Your task to perform on an android device: toggle notifications settings in the gmail app Image 0: 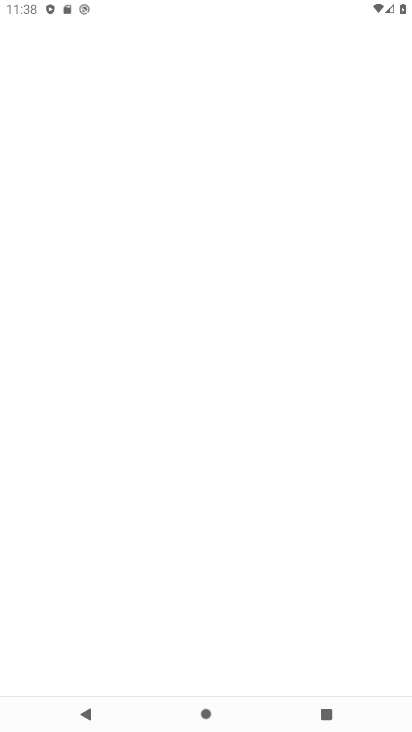
Step 0: drag from (290, 575) to (254, 206)
Your task to perform on an android device: toggle notifications settings in the gmail app Image 1: 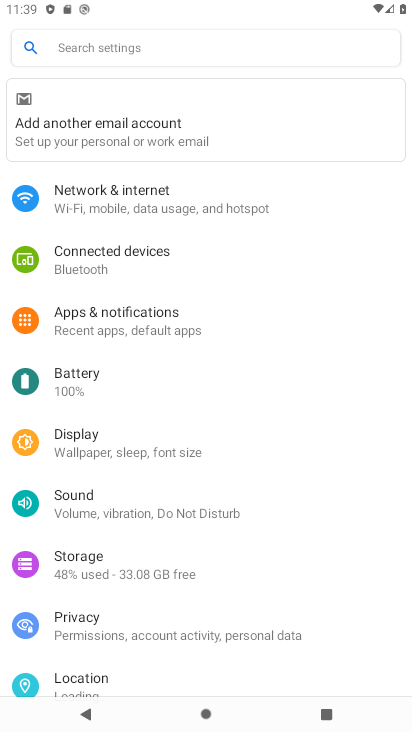
Step 1: press home button
Your task to perform on an android device: toggle notifications settings in the gmail app Image 2: 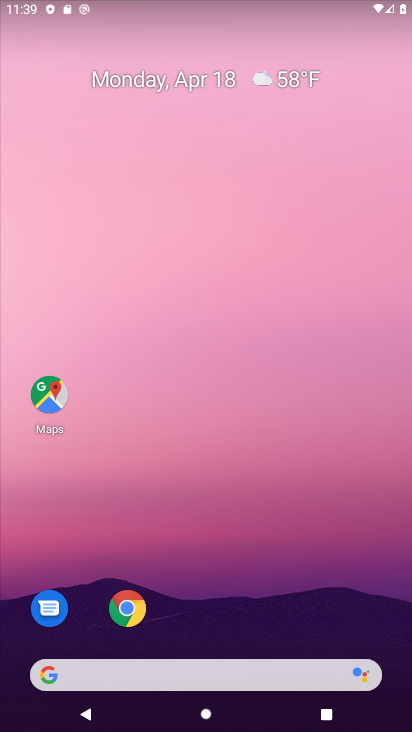
Step 2: drag from (249, 595) to (202, 137)
Your task to perform on an android device: toggle notifications settings in the gmail app Image 3: 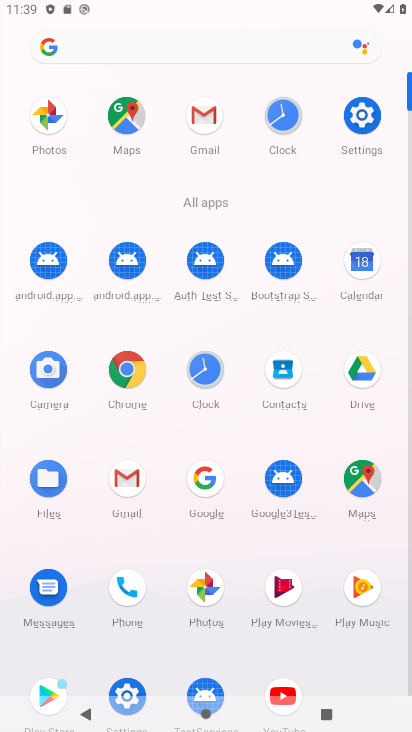
Step 3: click (200, 110)
Your task to perform on an android device: toggle notifications settings in the gmail app Image 4: 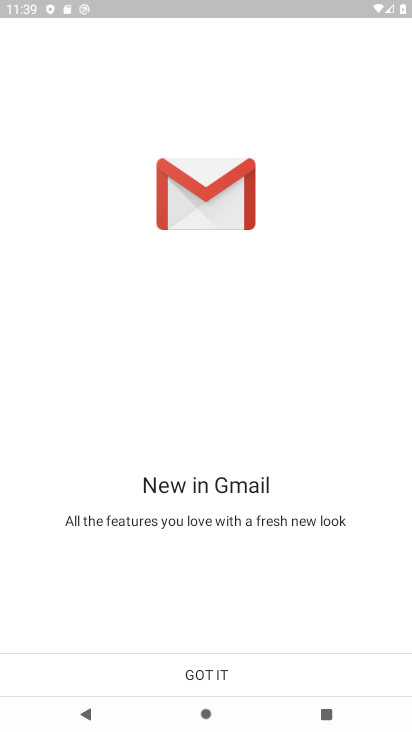
Step 4: click (222, 666)
Your task to perform on an android device: toggle notifications settings in the gmail app Image 5: 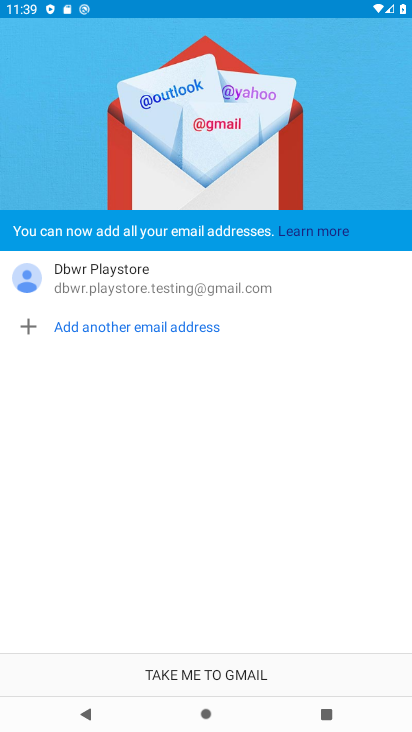
Step 5: click (222, 665)
Your task to perform on an android device: toggle notifications settings in the gmail app Image 6: 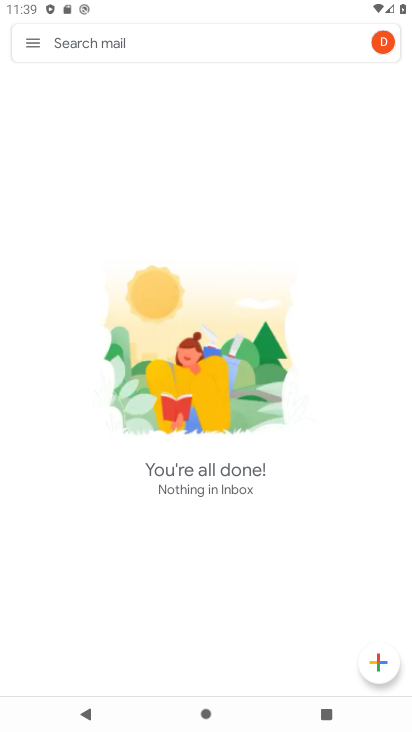
Step 6: click (28, 43)
Your task to perform on an android device: toggle notifications settings in the gmail app Image 7: 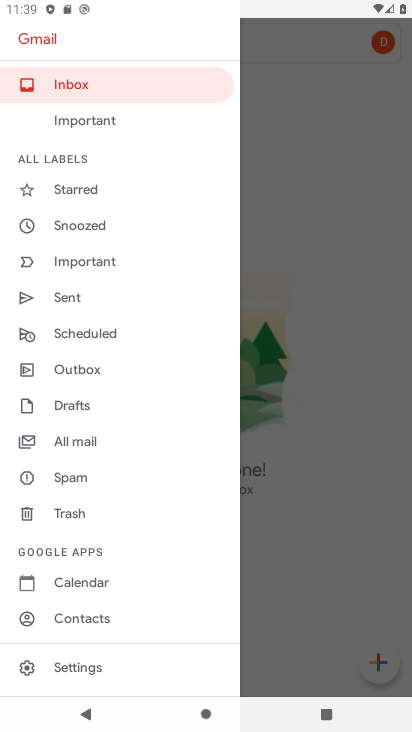
Step 7: drag from (115, 673) to (146, 365)
Your task to perform on an android device: toggle notifications settings in the gmail app Image 8: 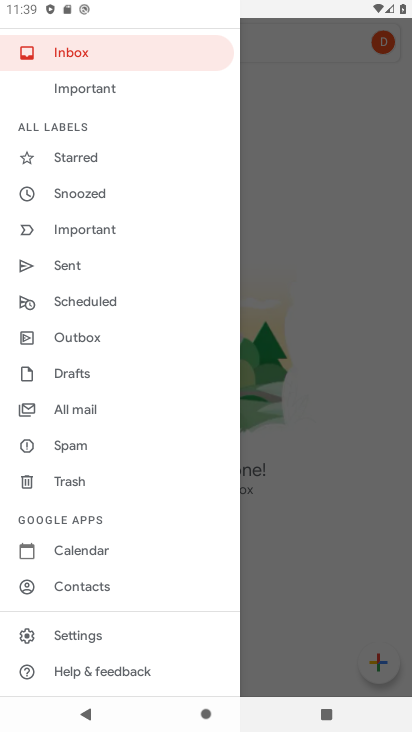
Step 8: click (69, 636)
Your task to perform on an android device: toggle notifications settings in the gmail app Image 9: 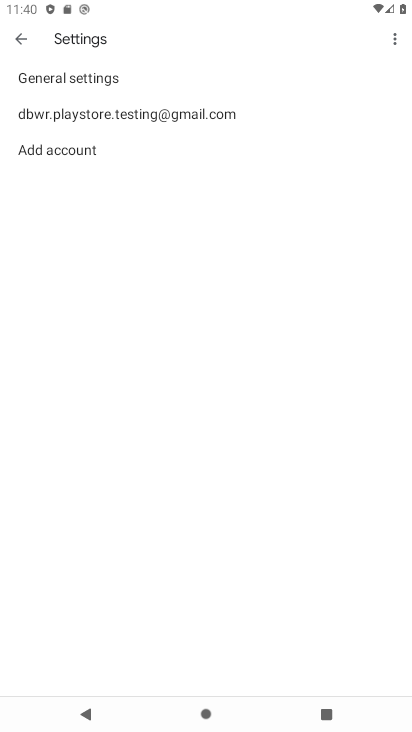
Step 9: click (168, 107)
Your task to perform on an android device: toggle notifications settings in the gmail app Image 10: 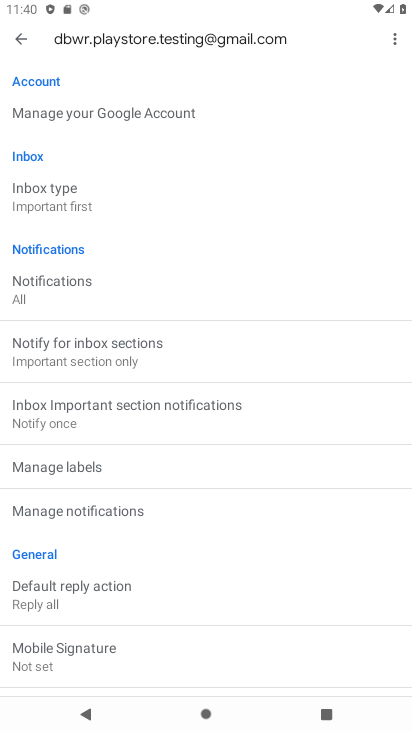
Step 10: click (97, 521)
Your task to perform on an android device: toggle notifications settings in the gmail app Image 11: 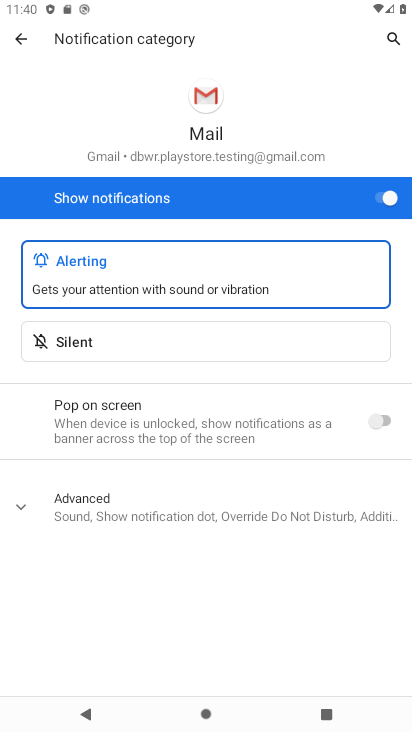
Step 11: click (341, 198)
Your task to perform on an android device: toggle notifications settings in the gmail app Image 12: 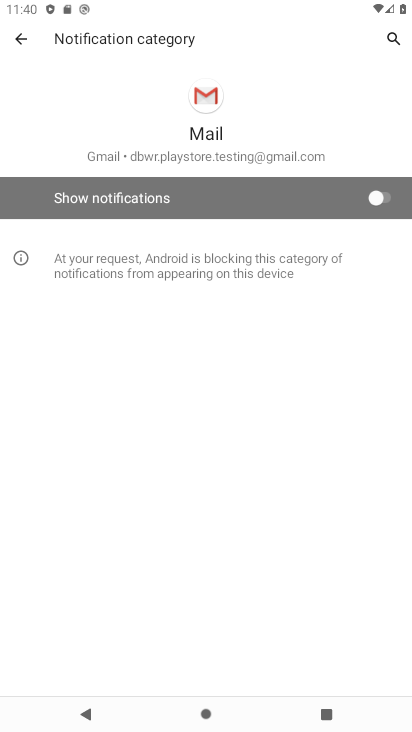
Step 12: task complete